Your task to perform on an android device: Go to Google Image 0: 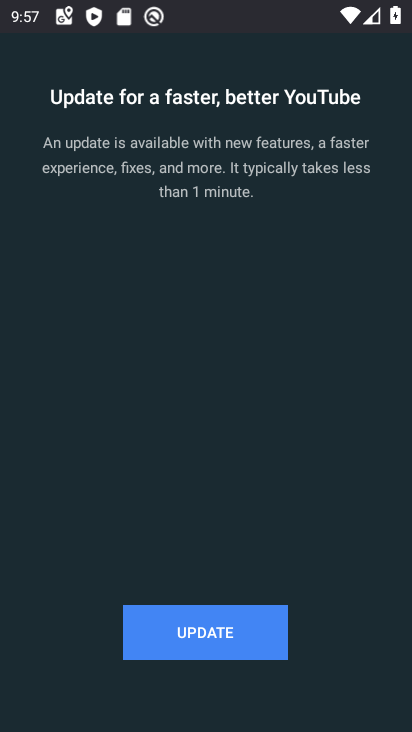
Step 0: press home button
Your task to perform on an android device: Go to Google Image 1: 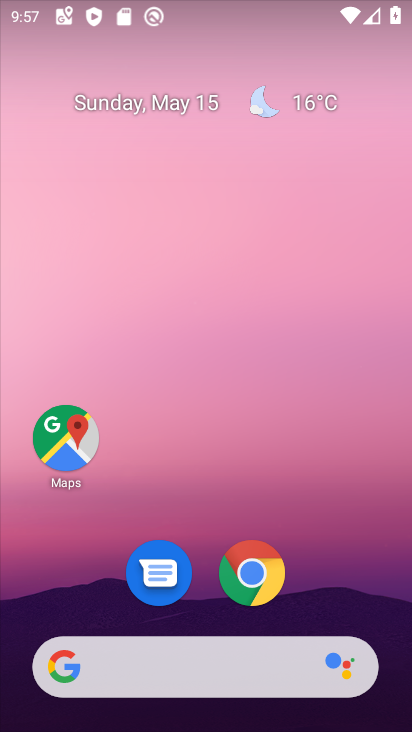
Step 1: drag from (348, 595) to (305, 81)
Your task to perform on an android device: Go to Google Image 2: 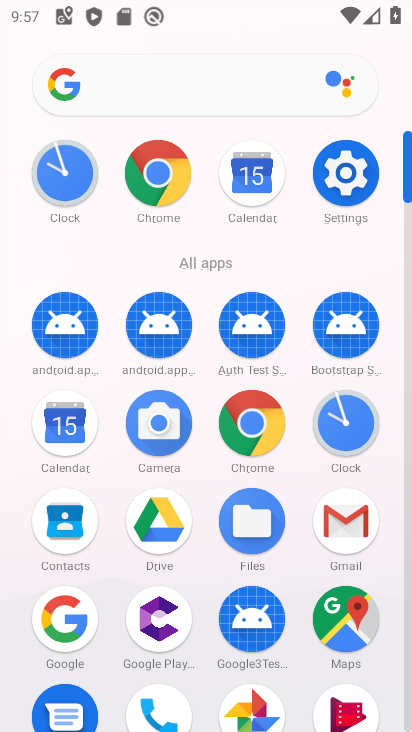
Step 2: click (58, 612)
Your task to perform on an android device: Go to Google Image 3: 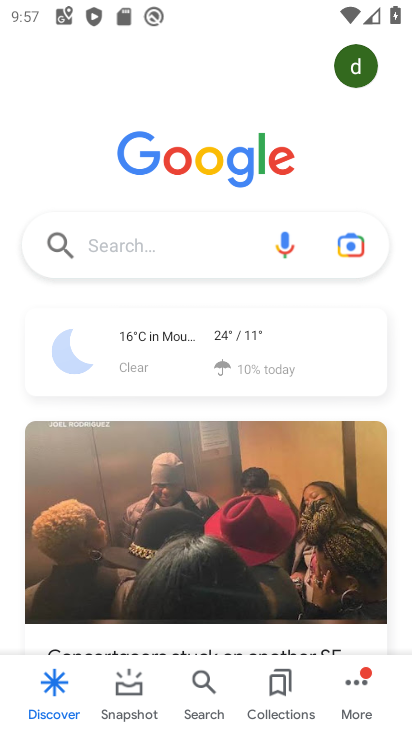
Step 3: task complete